Your task to perform on an android device: set the stopwatch Image 0: 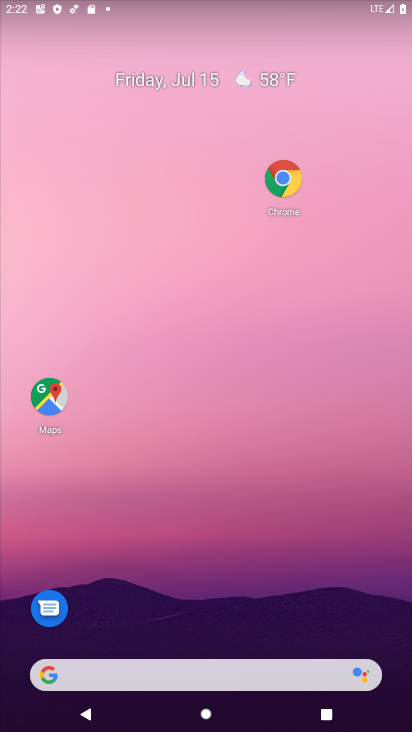
Step 0: drag from (245, 604) to (246, 139)
Your task to perform on an android device: set the stopwatch Image 1: 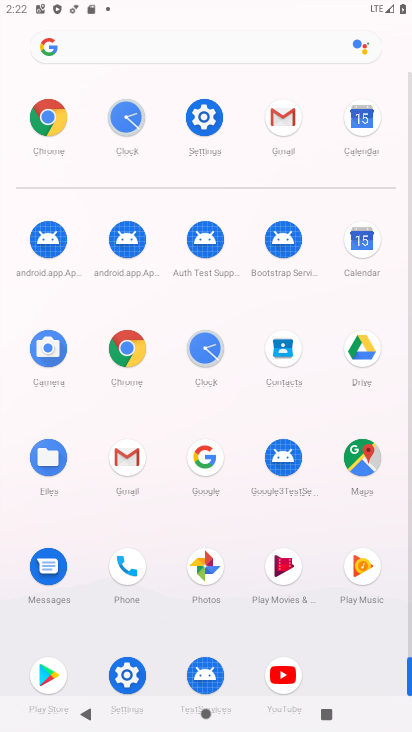
Step 1: click (185, 348)
Your task to perform on an android device: set the stopwatch Image 2: 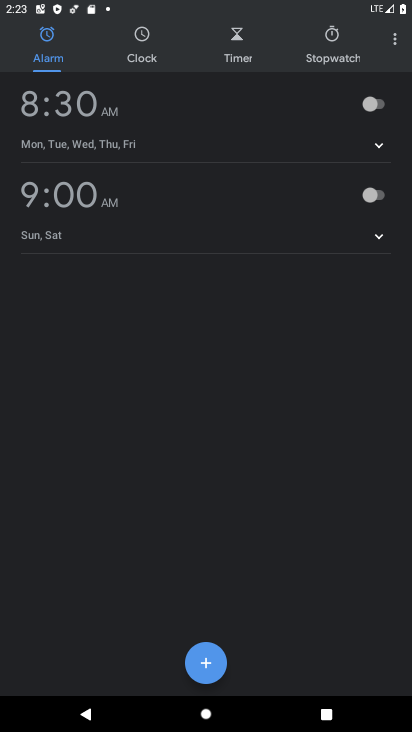
Step 2: click (335, 27)
Your task to perform on an android device: set the stopwatch Image 3: 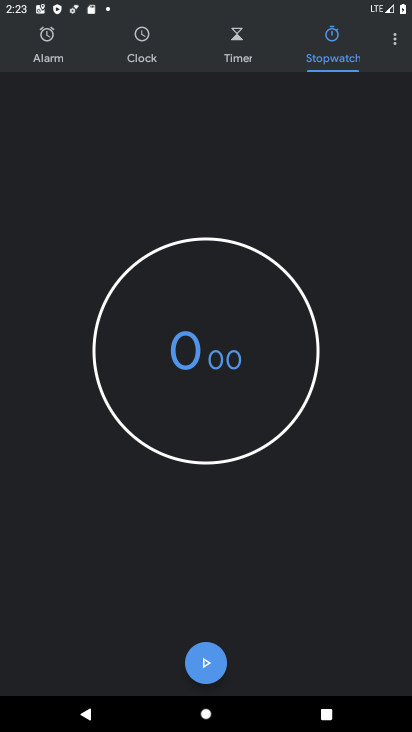
Step 3: click (211, 655)
Your task to perform on an android device: set the stopwatch Image 4: 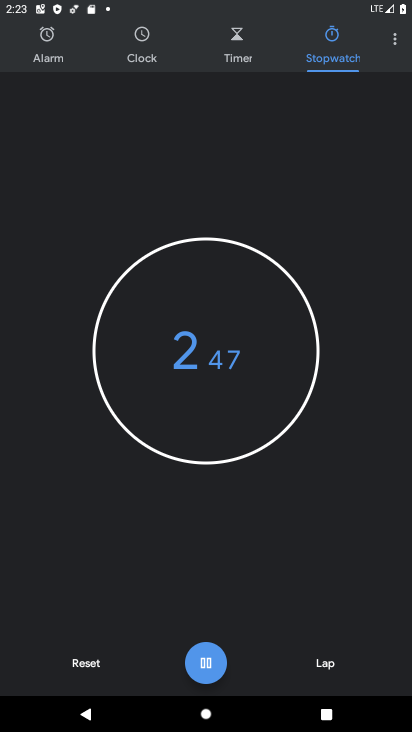
Step 4: task complete